Your task to perform on an android device: star an email in the gmail app Image 0: 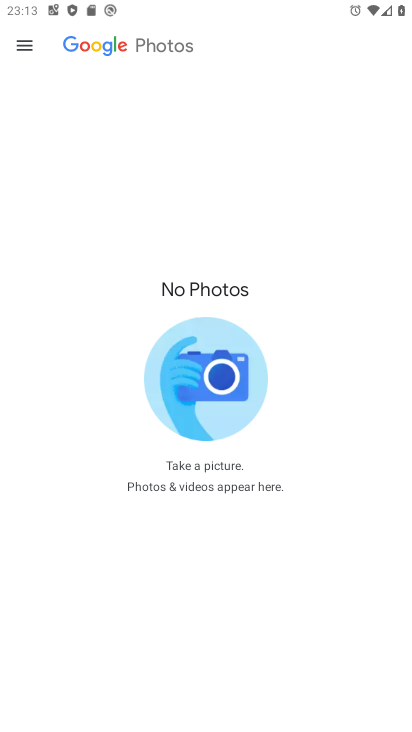
Step 0: press home button
Your task to perform on an android device: star an email in the gmail app Image 1: 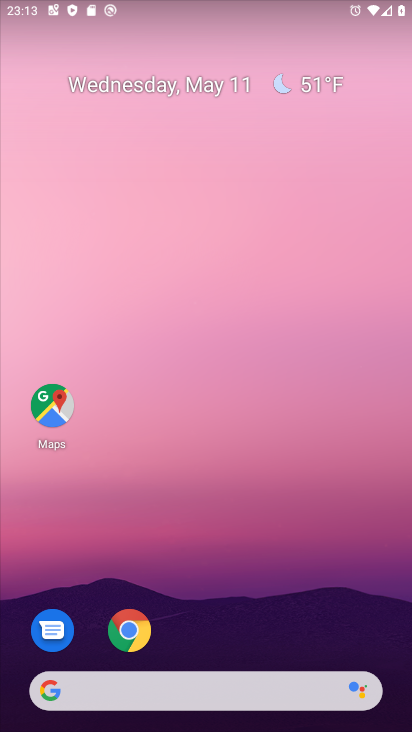
Step 1: drag from (219, 727) to (235, 174)
Your task to perform on an android device: star an email in the gmail app Image 2: 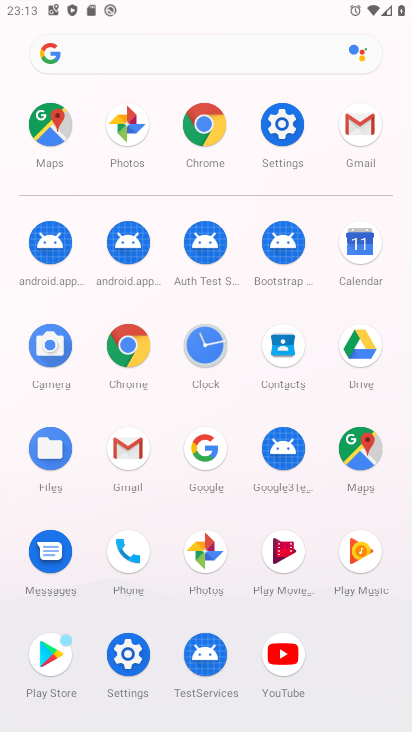
Step 2: click (124, 453)
Your task to perform on an android device: star an email in the gmail app Image 3: 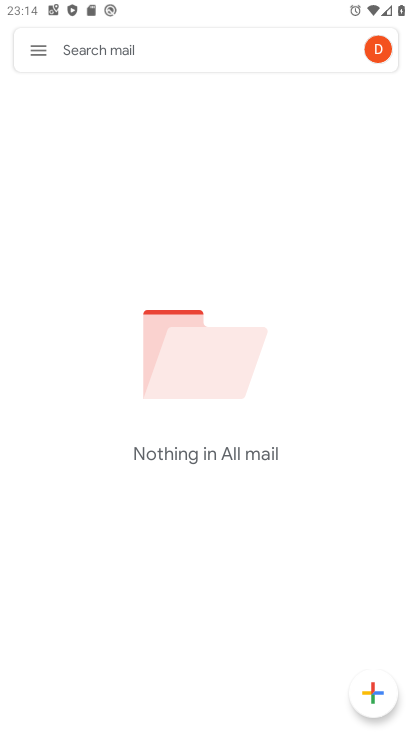
Step 3: click (39, 54)
Your task to perform on an android device: star an email in the gmail app Image 4: 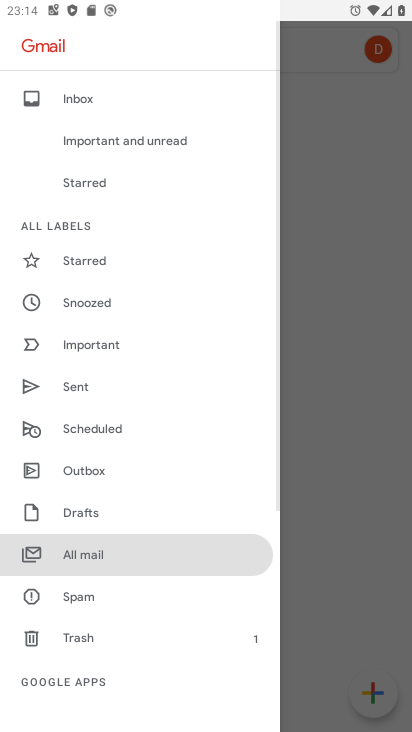
Step 4: click (91, 102)
Your task to perform on an android device: star an email in the gmail app Image 5: 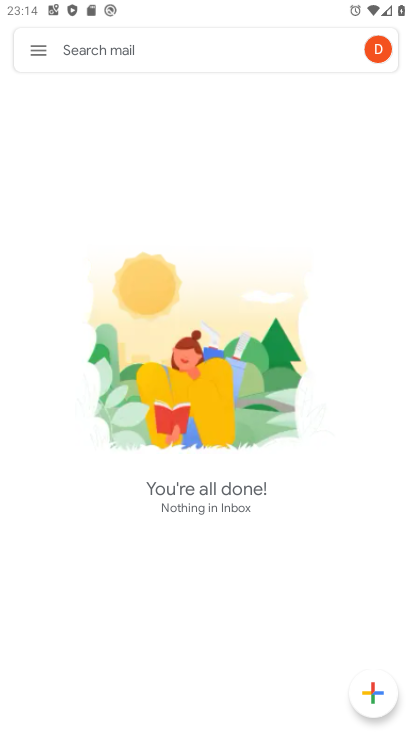
Step 5: task complete